Your task to perform on an android device: View the shopping cart on newegg. Search for "usb-b" on newegg, select the first entry, and add it to the cart. Image 0: 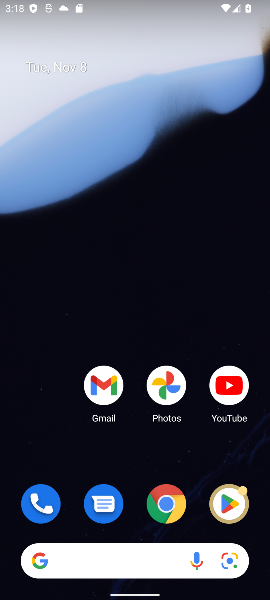
Step 0: drag from (112, 501) to (144, 86)
Your task to perform on an android device: View the shopping cart on newegg. Search for "usb-b" on newegg, select the first entry, and add it to the cart. Image 1: 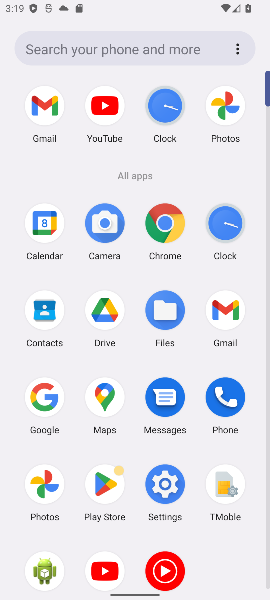
Step 1: click (165, 227)
Your task to perform on an android device: View the shopping cart on newegg. Search for "usb-b" on newegg, select the first entry, and add it to the cart. Image 2: 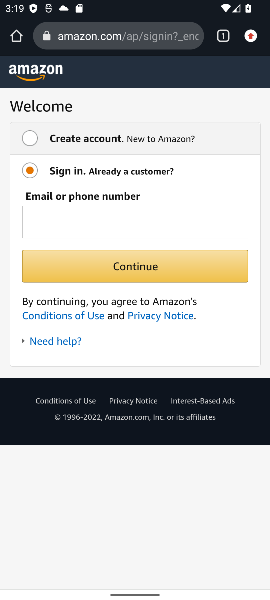
Step 2: click (140, 34)
Your task to perform on an android device: View the shopping cart on newegg. Search for "usb-b" on newegg, select the first entry, and add it to the cart. Image 3: 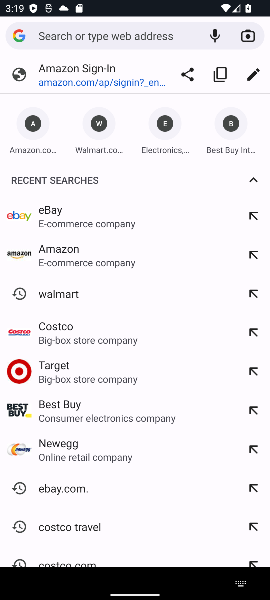
Step 3: type "newegg."
Your task to perform on an android device: View the shopping cart on newegg. Search for "usb-b" on newegg, select the first entry, and add it to the cart. Image 4: 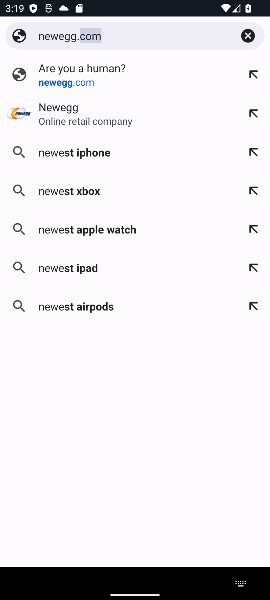
Step 4: press enter
Your task to perform on an android device: View the shopping cart on newegg. Search for "usb-b" on newegg, select the first entry, and add it to the cart. Image 5: 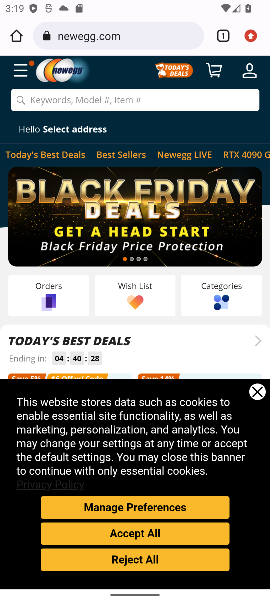
Step 5: click (90, 96)
Your task to perform on an android device: View the shopping cart on newegg. Search for "usb-b" on newegg, select the first entry, and add it to the cart. Image 6: 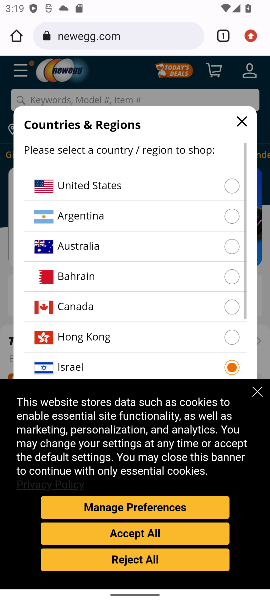
Step 6: click (174, 187)
Your task to perform on an android device: View the shopping cart on newegg. Search for "usb-b" on newegg, select the first entry, and add it to the cart. Image 7: 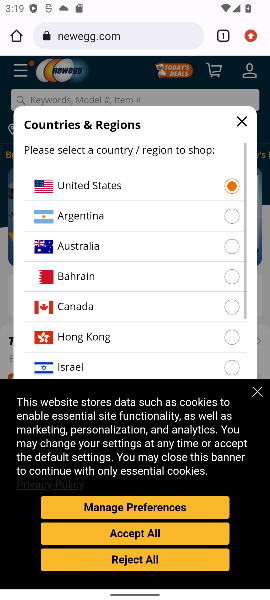
Step 7: click (260, 395)
Your task to perform on an android device: View the shopping cart on newegg. Search for "usb-b" on newegg, select the first entry, and add it to the cart. Image 8: 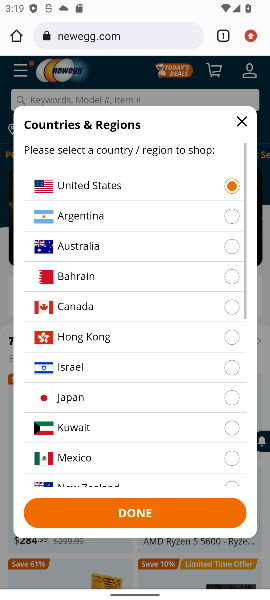
Step 8: click (146, 508)
Your task to perform on an android device: View the shopping cart on newegg. Search for "usb-b" on newegg, select the first entry, and add it to the cart. Image 9: 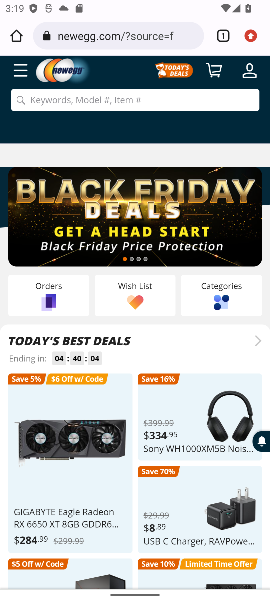
Step 9: click (96, 100)
Your task to perform on an android device: View the shopping cart on newegg. Search for "usb-b" on newegg, select the first entry, and add it to the cart. Image 10: 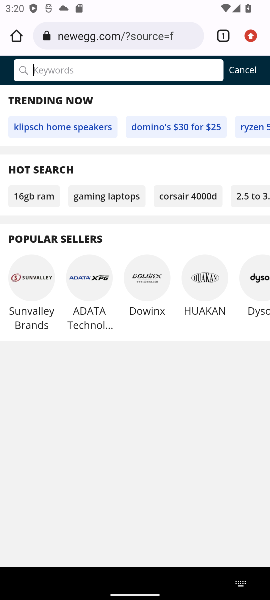
Step 10: type "usb-b"
Your task to perform on an android device: View the shopping cart on newegg. Search for "usb-b" on newegg, select the first entry, and add it to the cart. Image 11: 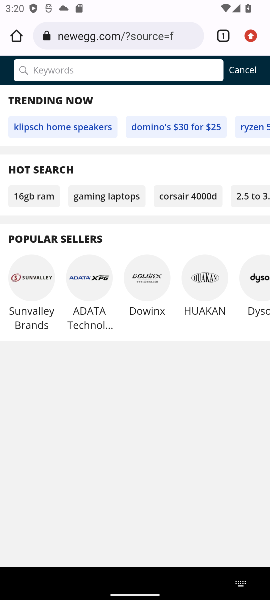
Step 11: press enter
Your task to perform on an android device: View the shopping cart on newegg. Search for "usb-b" on newegg, select the first entry, and add it to the cart. Image 12: 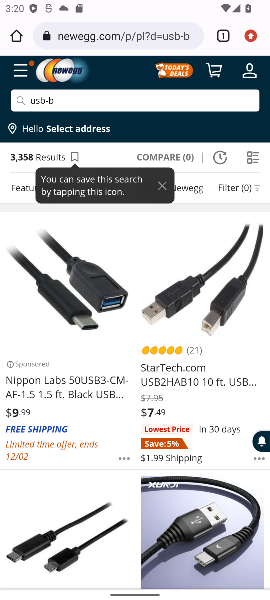
Step 12: click (57, 384)
Your task to perform on an android device: View the shopping cart on newegg. Search for "usb-b" on newegg, select the first entry, and add it to the cart. Image 13: 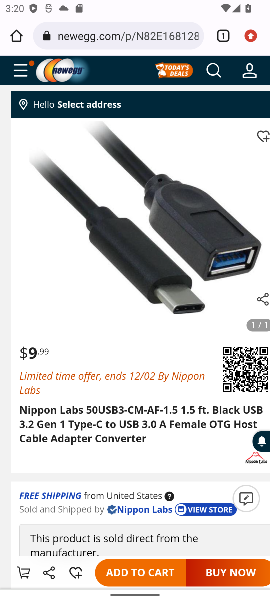
Step 13: drag from (128, 480) to (161, 296)
Your task to perform on an android device: View the shopping cart on newegg. Search for "usb-b" on newegg, select the first entry, and add it to the cart. Image 14: 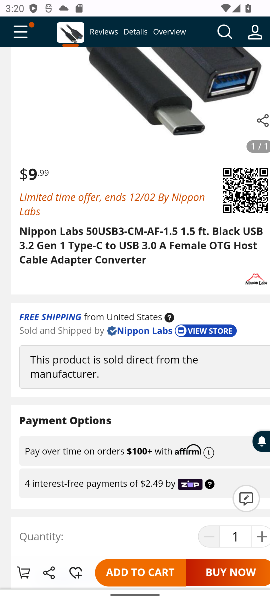
Step 14: click (137, 573)
Your task to perform on an android device: View the shopping cart on newegg. Search for "usb-b" on newegg, select the first entry, and add it to the cart. Image 15: 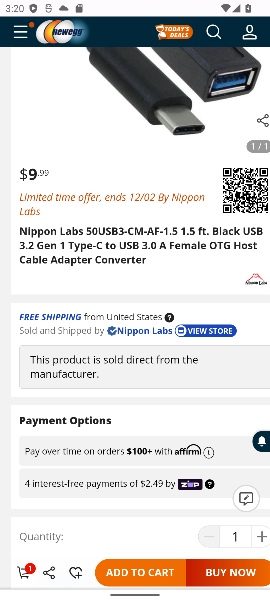
Step 15: task complete